Your task to perform on an android device: change keyboard looks Image 0: 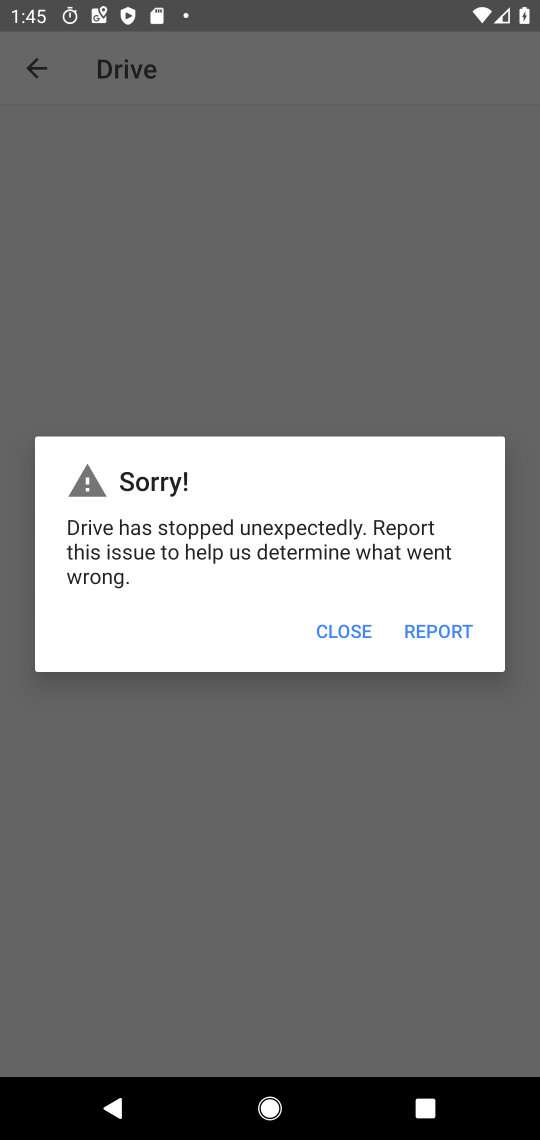
Step 0: press home button
Your task to perform on an android device: change keyboard looks Image 1: 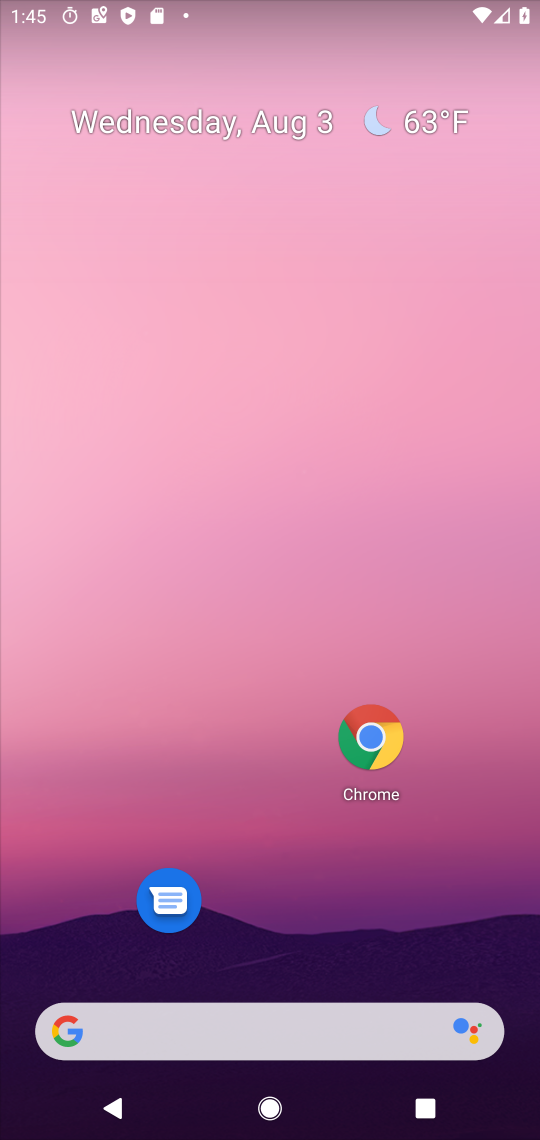
Step 1: drag from (511, 933) to (405, 227)
Your task to perform on an android device: change keyboard looks Image 2: 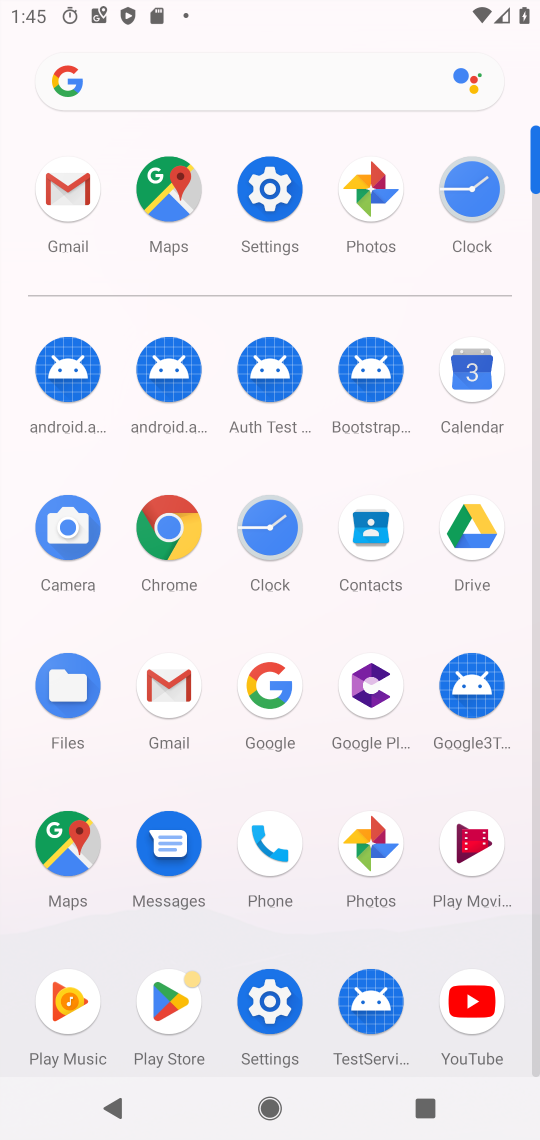
Step 2: click (262, 992)
Your task to perform on an android device: change keyboard looks Image 3: 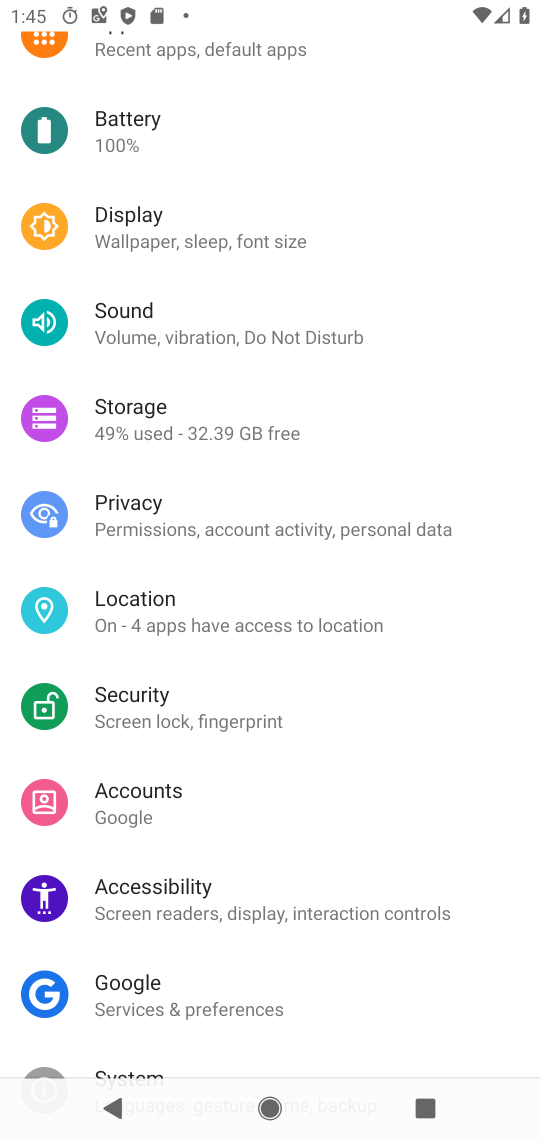
Step 3: drag from (394, 833) to (418, 201)
Your task to perform on an android device: change keyboard looks Image 4: 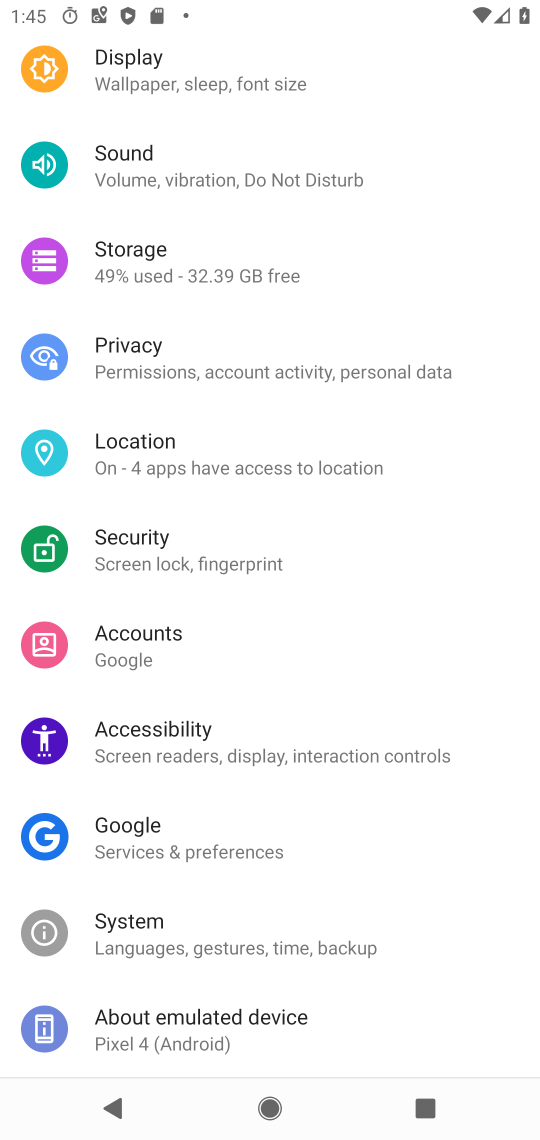
Step 4: click (142, 934)
Your task to perform on an android device: change keyboard looks Image 5: 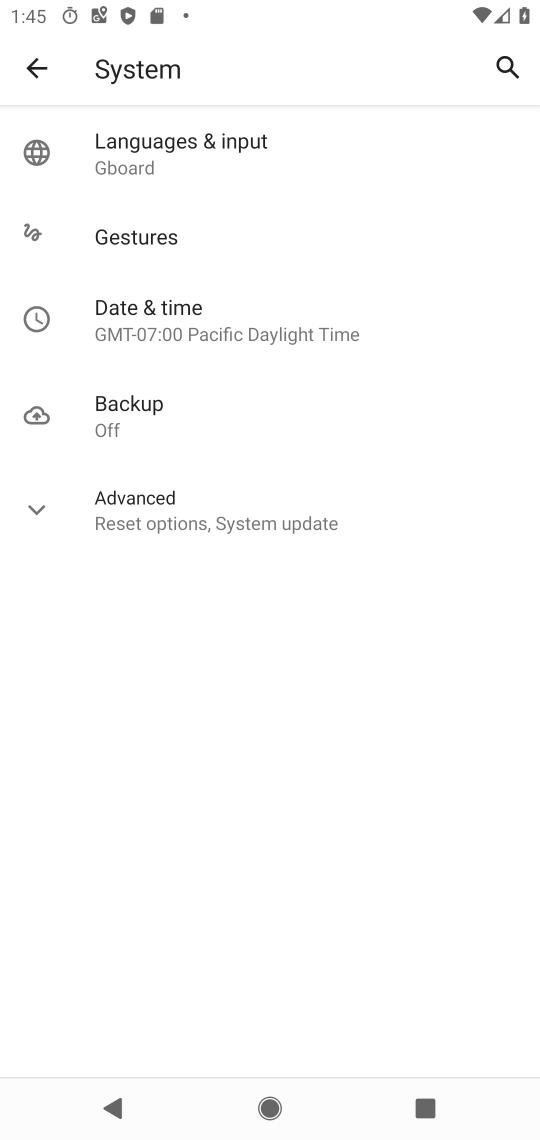
Step 5: click (180, 156)
Your task to perform on an android device: change keyboard looks Image 6: 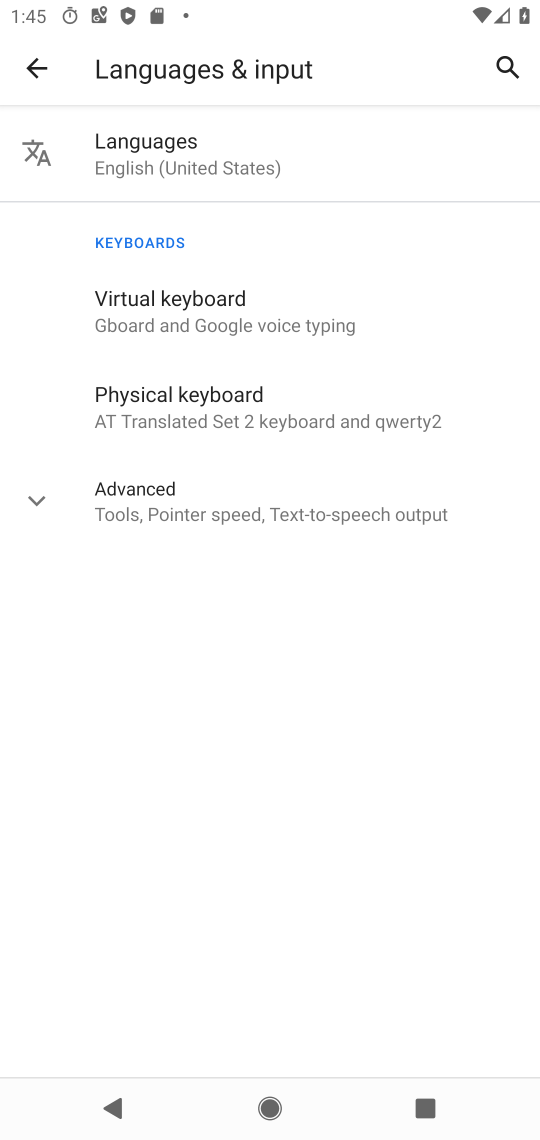
Step 6: click (157, 300)
Your task to perform on an android device: change keyboard looks Image 7: 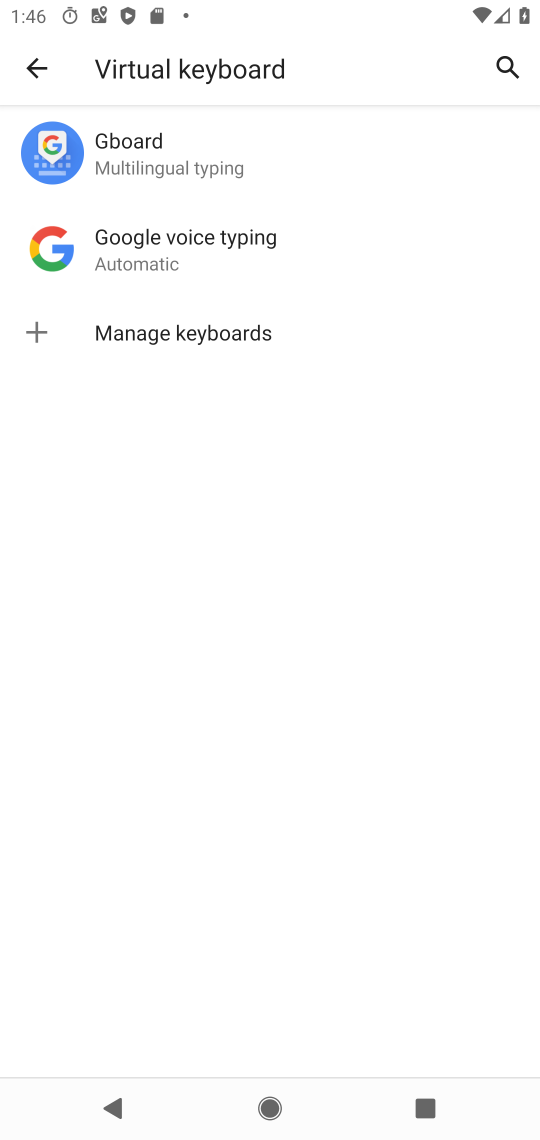
Step 7: click (169, 155)
Your task to perform on an android device: change keyboard looks Image 8: 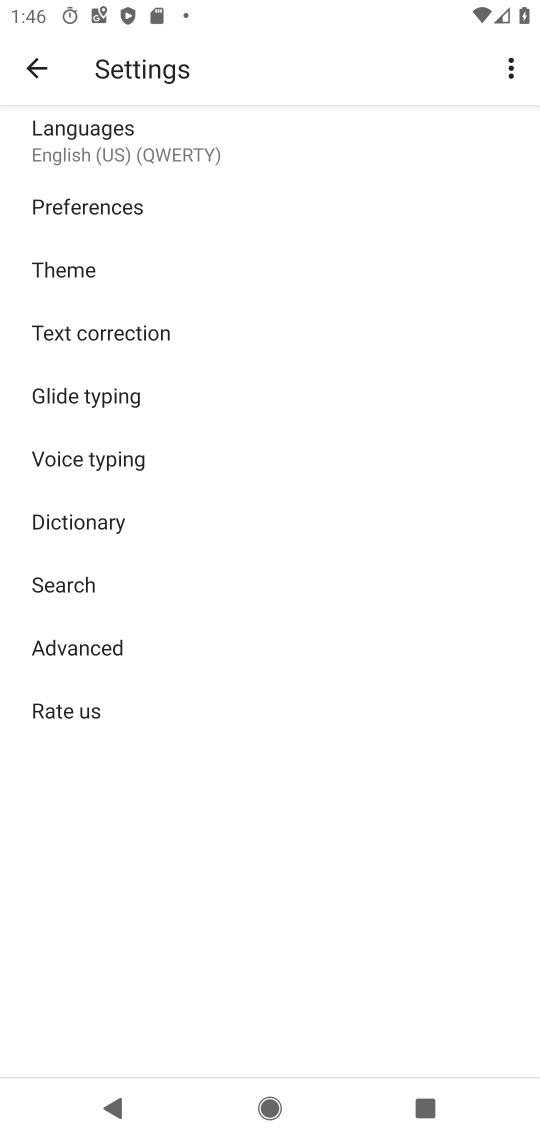
Step 8: click (114, 263)
Your task to perform on an android device: change keyboard looks Image 9: 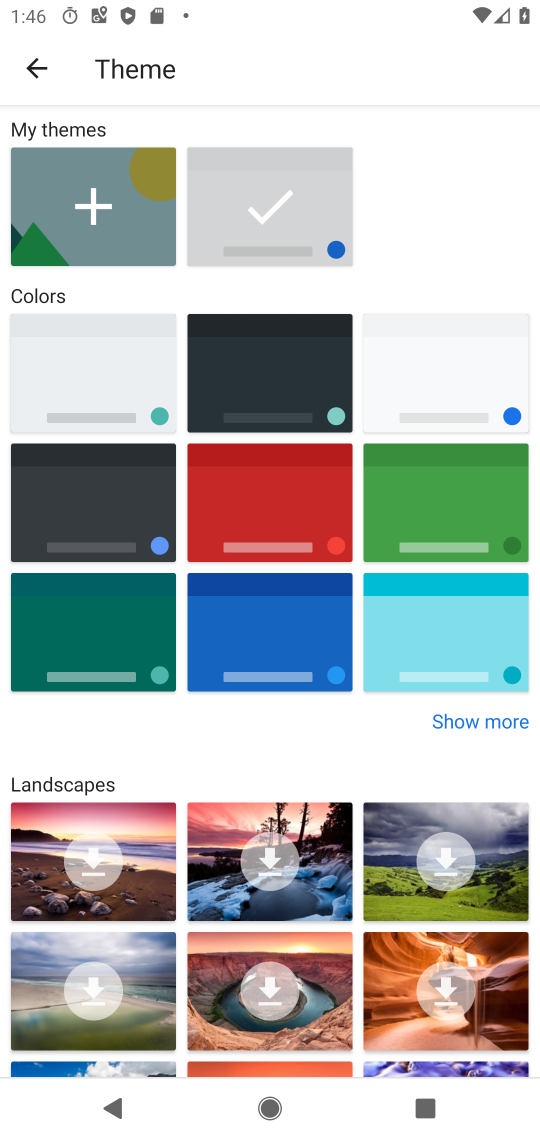
Step 9: click (151, 379)
Your task to perform on an android device: change keyboard looks Image 10: 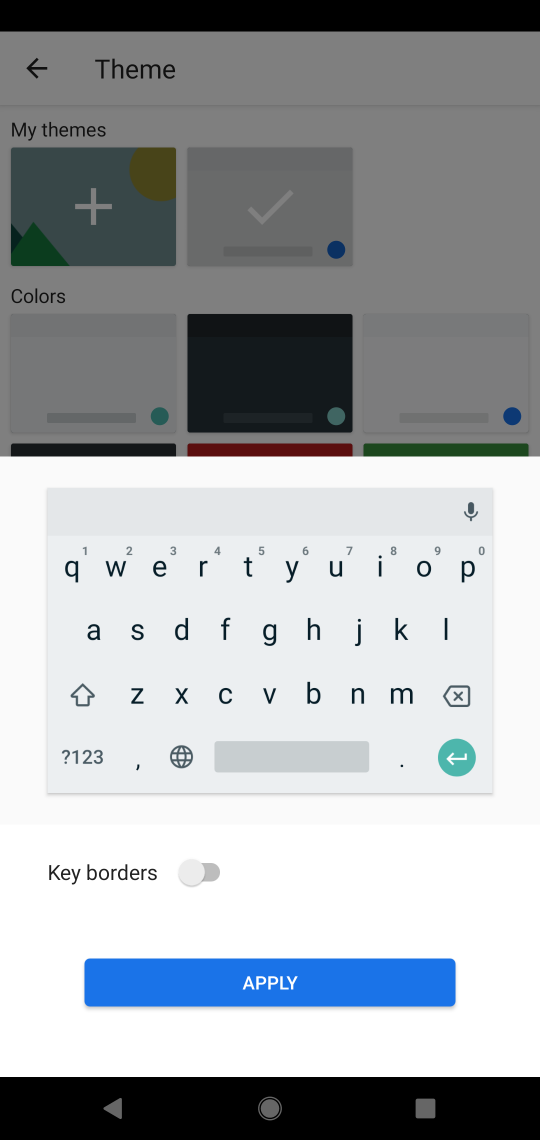
Step 10: click (388, 996)
Your task to perform on an android device: change keyboard looks Image 11: 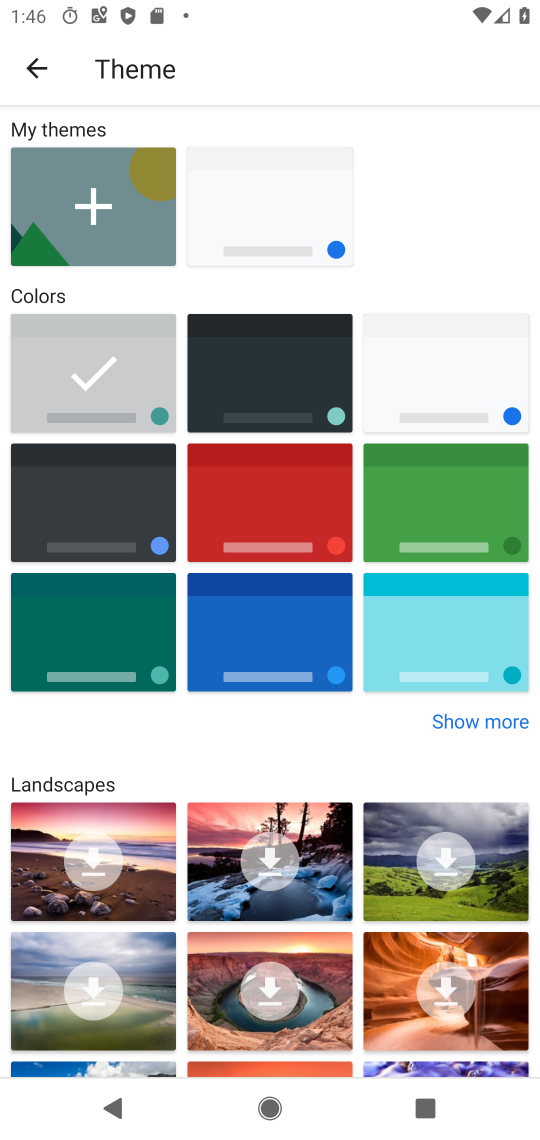
Step 11: task complete